Your task to perform on an android device: Is it going to rain today? Image 0: 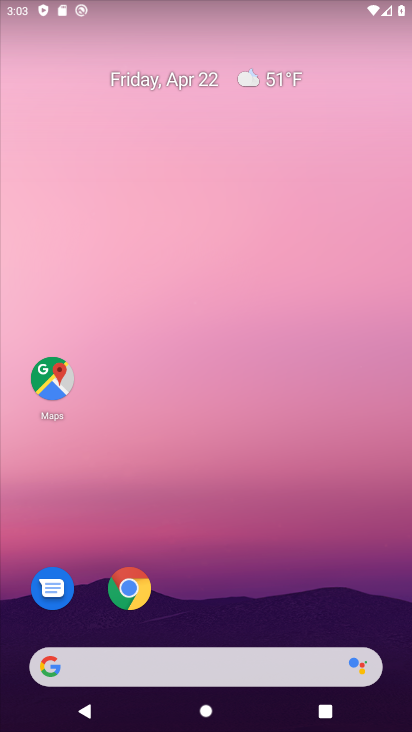
Step 0: click (273, 664)
Your task to perform on an android device: Is it going to rain today? Image 1: 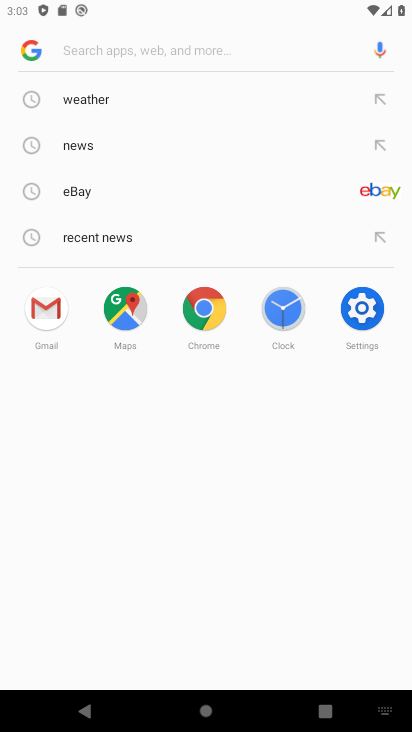
Step 1: click (99, 98)
Your task to perform on an android device: Is it going to rain today? Image 2: 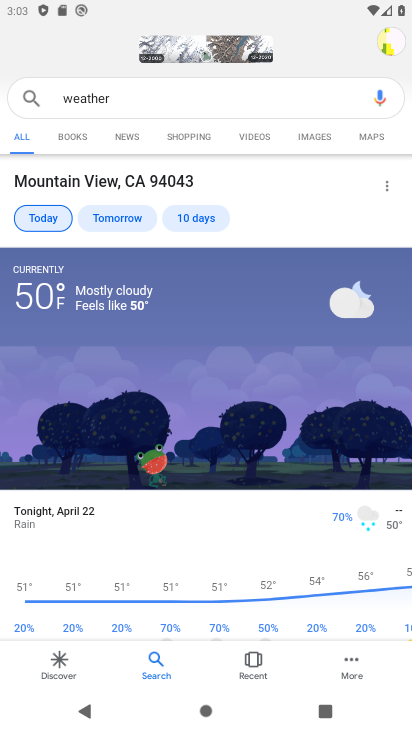
Step 2: task complete